Your task to perform on an android device: open chrome and create a bookmark for the current page Image 0: 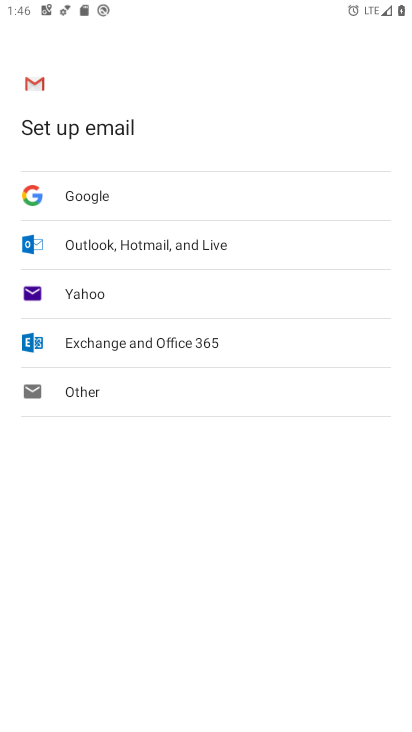
Step 0: press home button
Your task to perform on an android device: open chrome and create a bookmark for the current page Image 1: 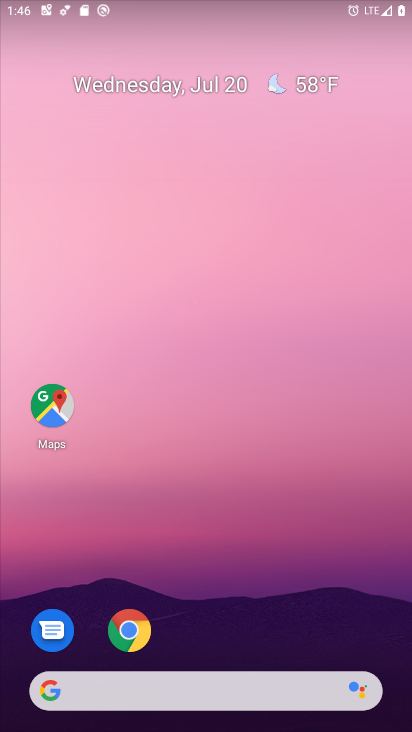
Step 1: click (315, 139)
Your task to perform on an android device: open chrome and create a bookmark for the current page Image 2: 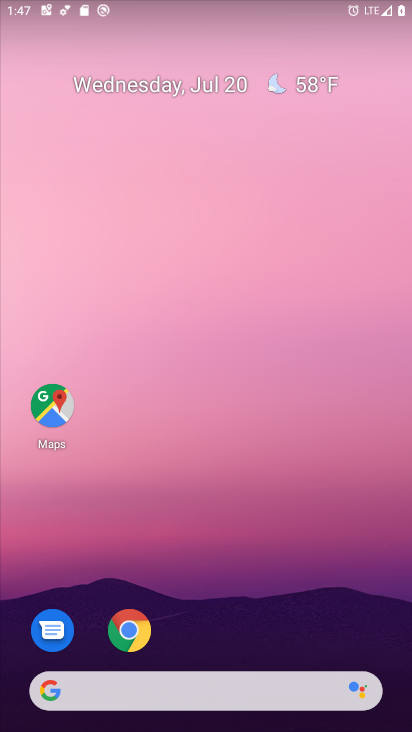
Step 2: drag from (183, 609) to (403, 28)
Your task to perform on an android device: open chrome and create a bookmark for the current page Image 3: 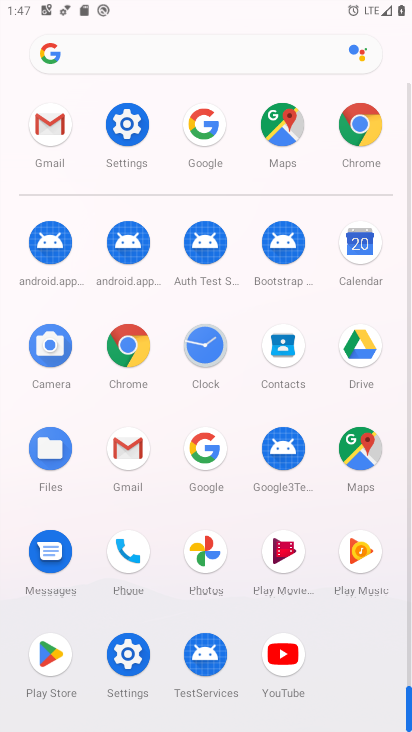
Step 3: click (349, 164)
Your task to perform on an android device: open chrome and create a bookmark for the current page Image 4: 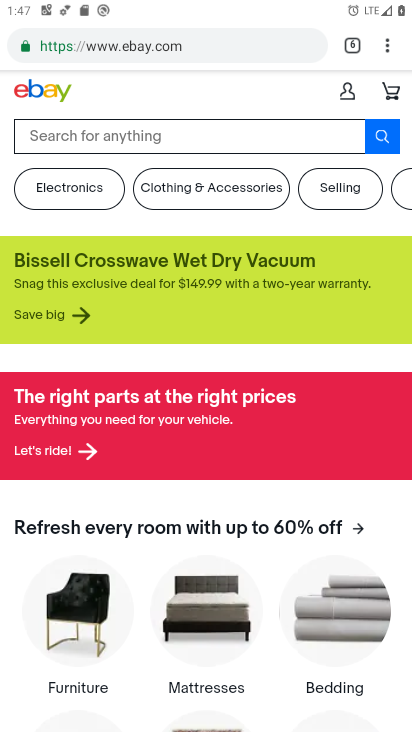
Step 4: click (391, 59)
Your task to perform on an android device: open chrome and create a bookmark for the current page Image 5: 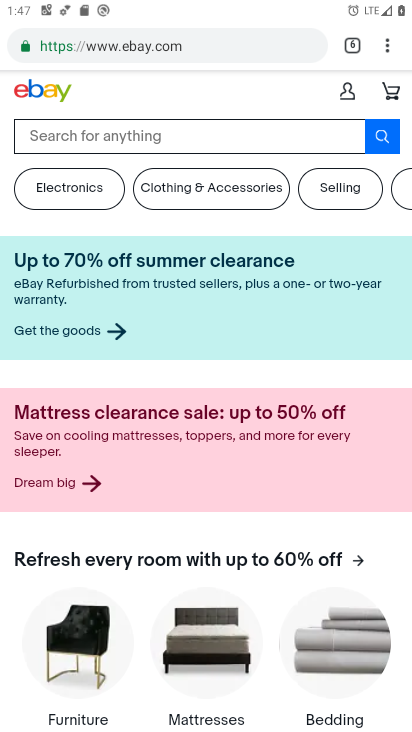
Step 5: task complete